Your task to perform on an android device: Show me popular games on the Play Store Image 0: 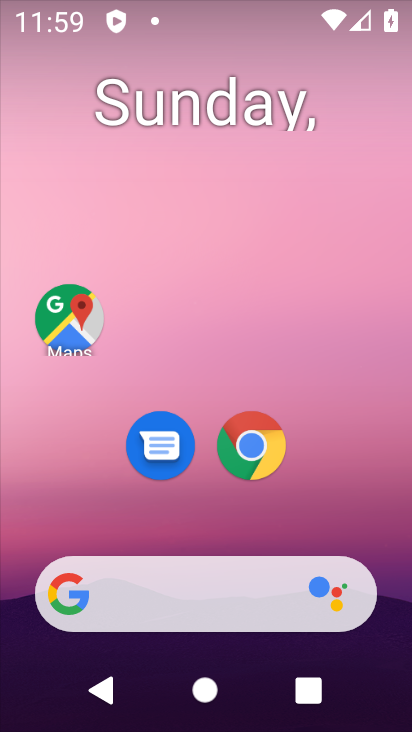
Step 0: drag from (290, 526) to (260, 36)
Your task to perform on an android device: Show me popular games on the Play Store Image 1: 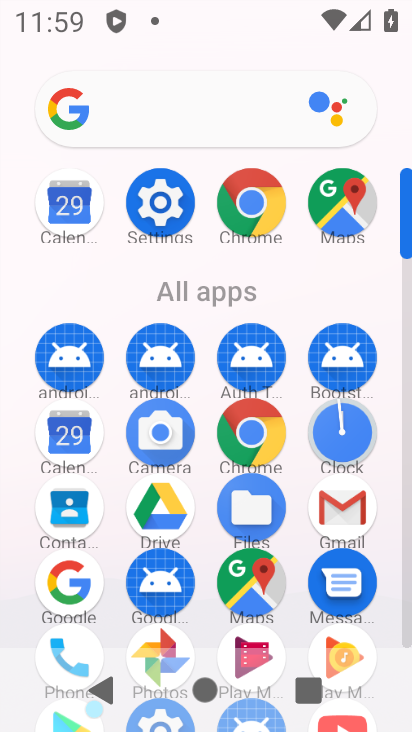
Step 1: drag from (191, 307) to (189, 85)
Your task to perform on an android device: Show me popular games on the Play Store Image 2: 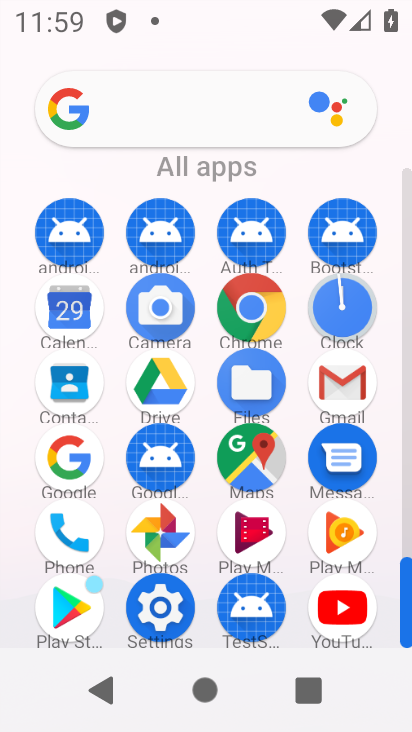
Step 2: click (76, 613)
Your task to perform on an android device: Show me popular games on the Play Store Image 3: 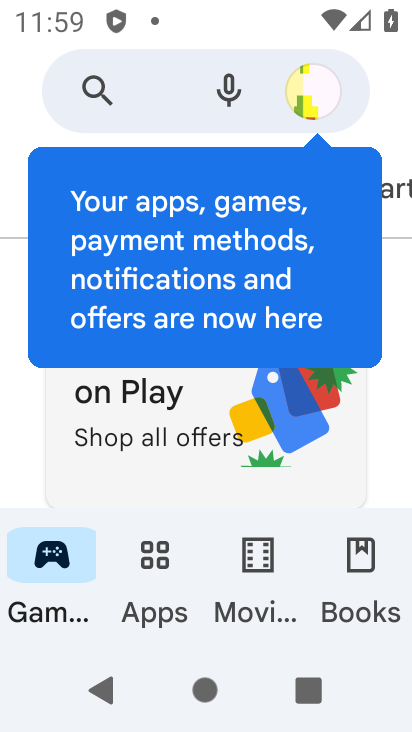
Step 3: click (110, 83)
Your task to perform on an android device: Show me popular games on the Play Store Image 4: 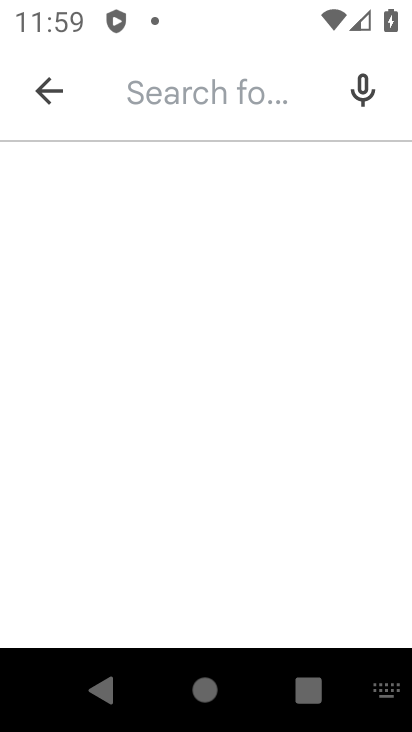
Step 4: type "popular games "
Your task to perform on an android device: Show me popular games on the Play Store Image 5: 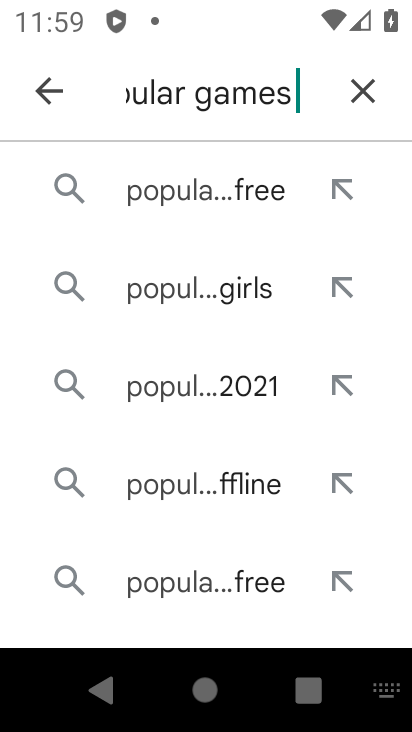
Step 5: click (190, 197)
Your task to perform on an android device: Show me popular games on the Play Store Image 6: 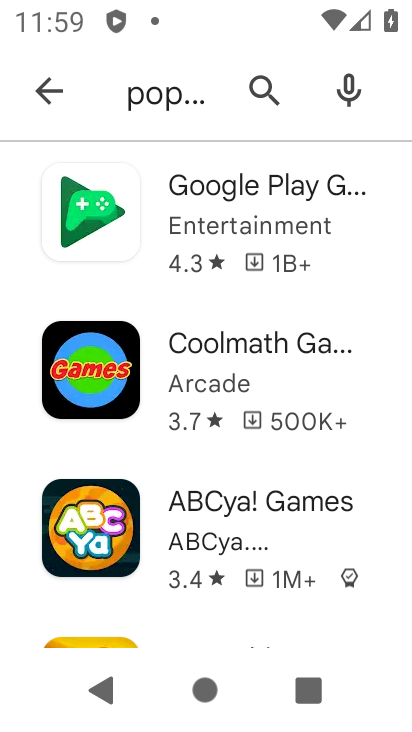
Step 6: task complete